Your task to perform on an android device: Open privacy settings Image 0: 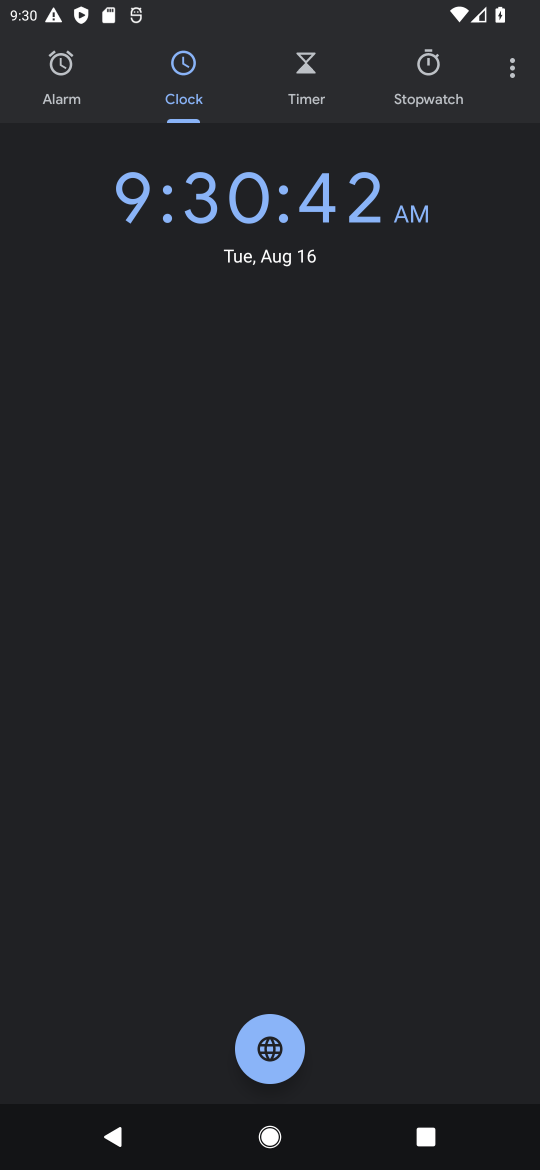
Step 0: press home button
Your task to perform on an android device: Open privacy settings Image 1: 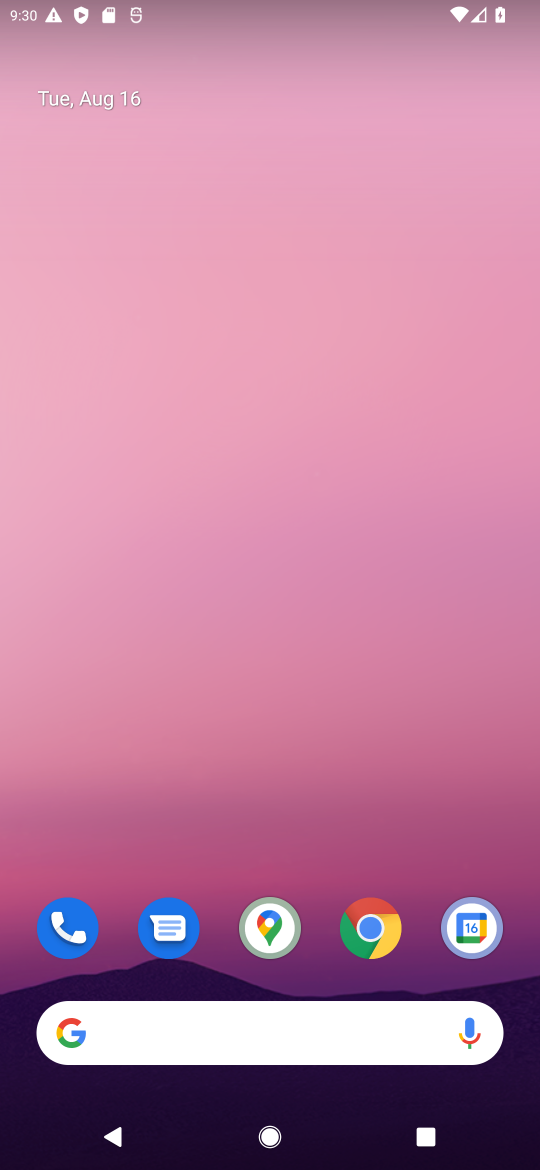
Step 1: drag from (308, 823) to (338, 15)
Your task to perform on an android device: Open privacy settings Image 2: 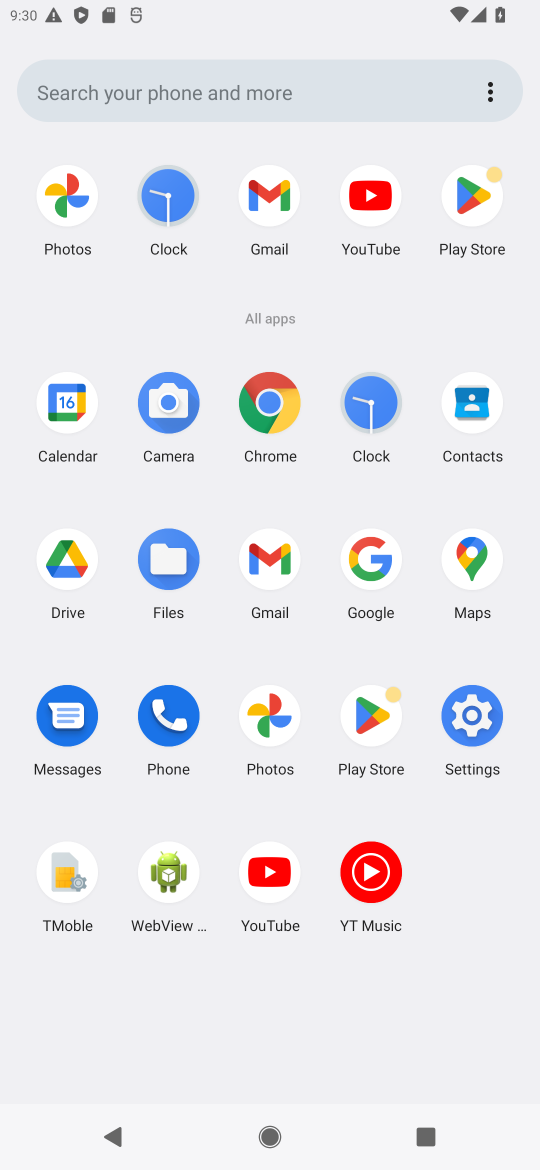
Step 2: click (463, 721)
Your task to perform on an android device: Open privacy settings Image 3: 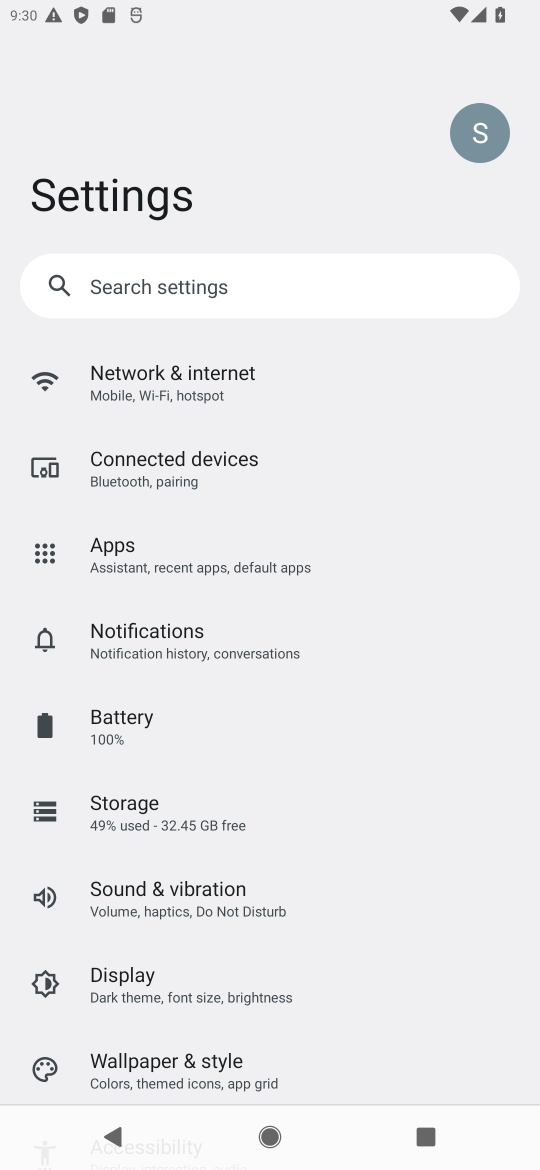
Step 3: drag from (173, 944) to (193, 452)
Your task to perform on an android device: Open privacy settings Image 4: 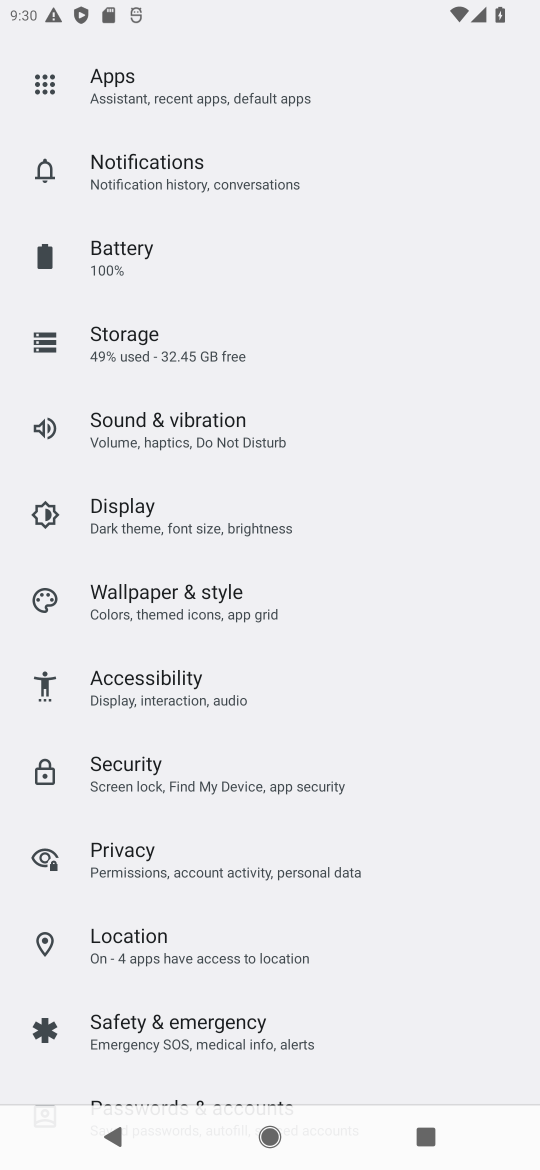
Step 4: click (136, 859)
Your task to perform on an android device: Open privacy settings Image 5: 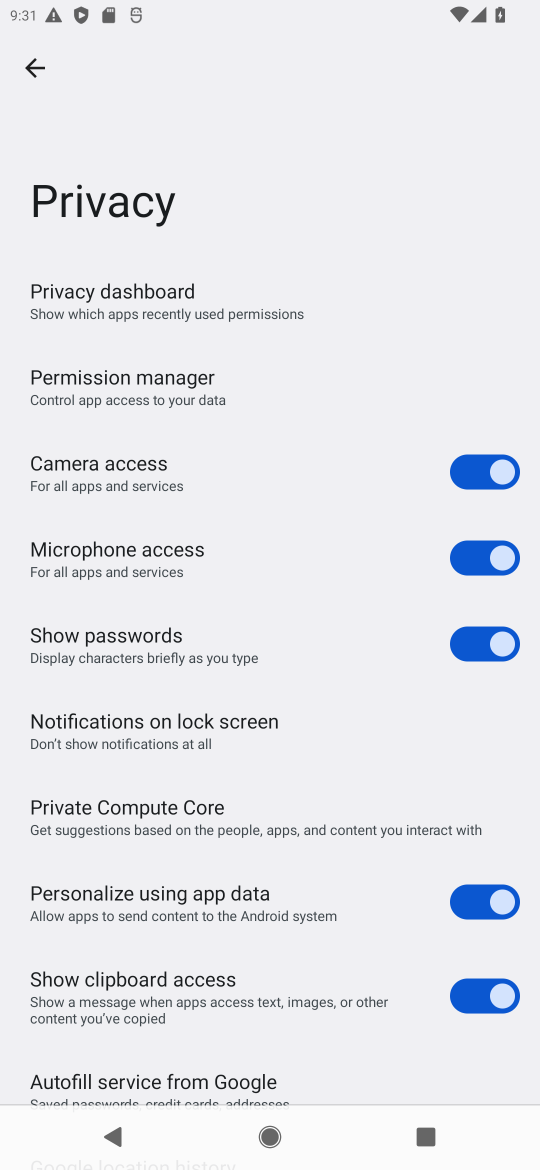
Step 5: task complete